Your task to perform on an android device: Go to wifi settings Image 0: 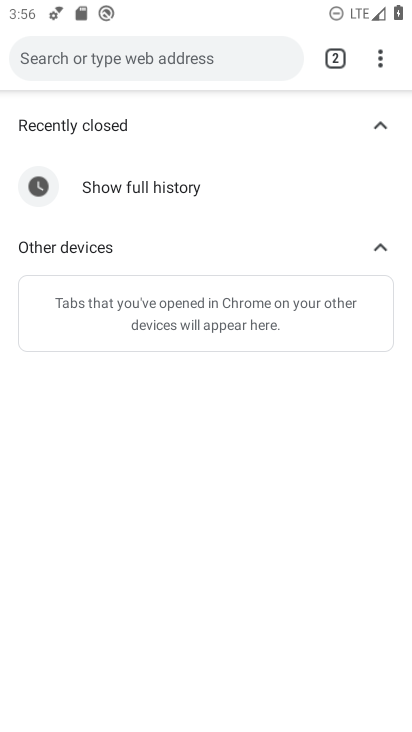
Step 0: press home button
Your task to perform on an android device: Go to wifi settings Image 1: 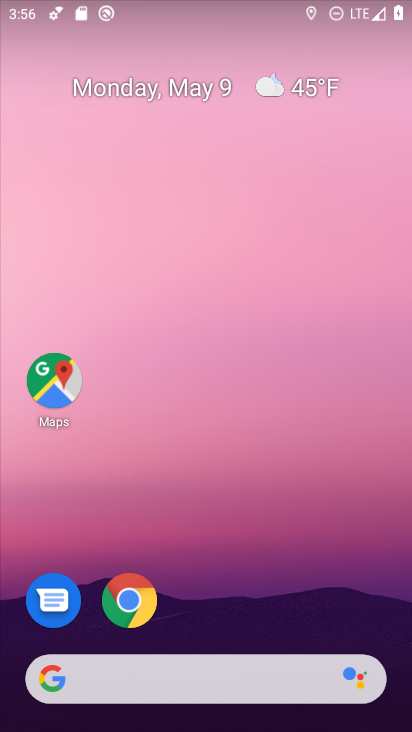
Step 1: drag from (208, 605) to (290, 22)
Your task to perform on an android device: Go to wifi settings Image 2: 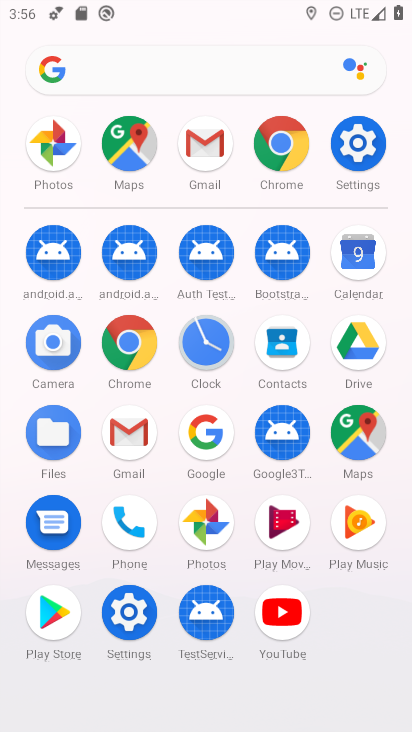
Step 2: click (139, 642)
Your task to perform on an android device: Go to wifi settings Image 3: 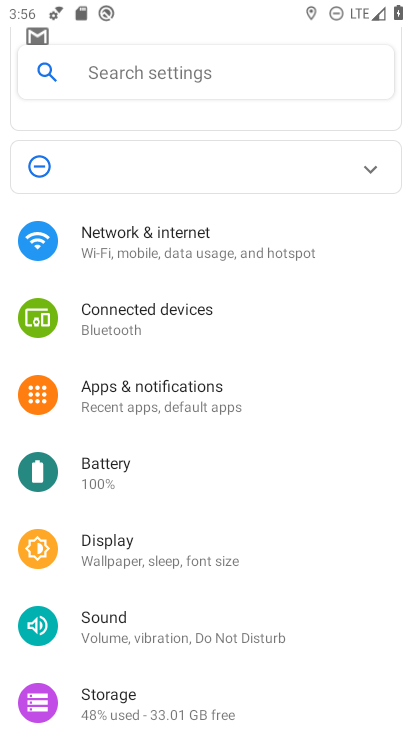
Step 3: click (174, 250)
Your task to perform on an android device: Go to wifi settings Image 4: 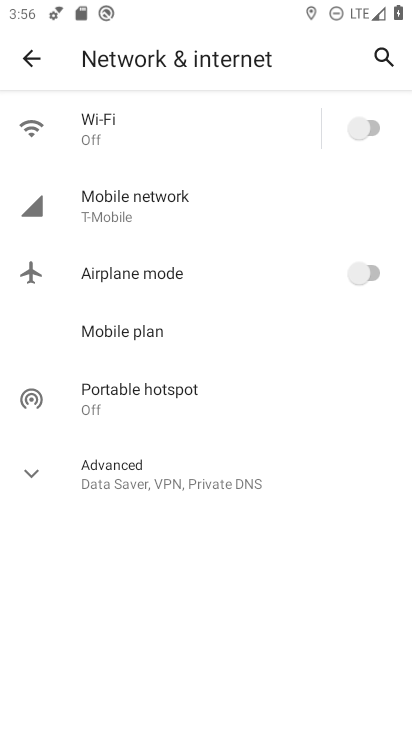
Step 4: click (127, 127)
Your task to perform on an android device: Go to wifi settings Image 5: 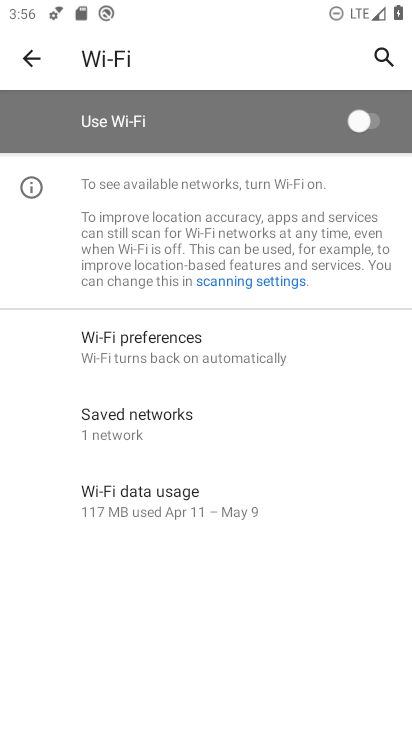
Step 5: task complete